Your task to perform on an android device: Go to settings Image 0: 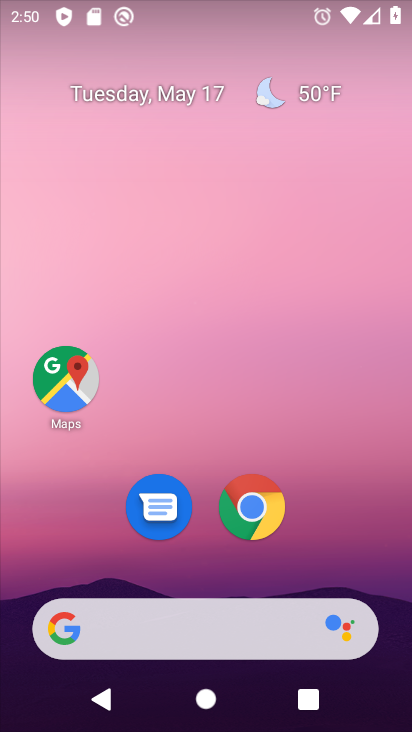
Step 0: drag from (327, 543) to (214, 19)
Your task to perform on an android device: Go to settings Image 1: 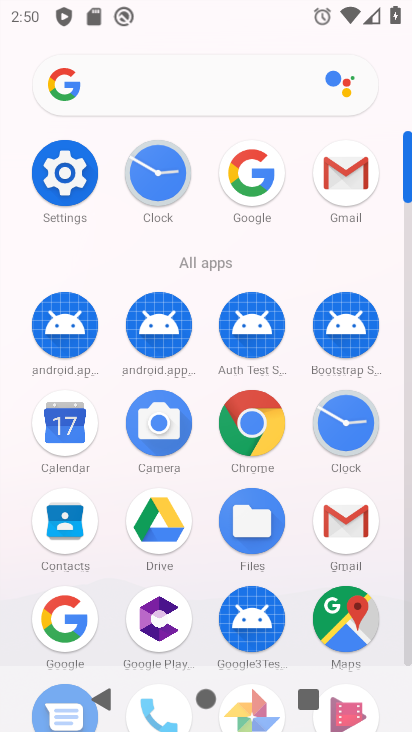
Step 1: click (67, 183)
Your task to perform on an android device: Go to settings Image 2: 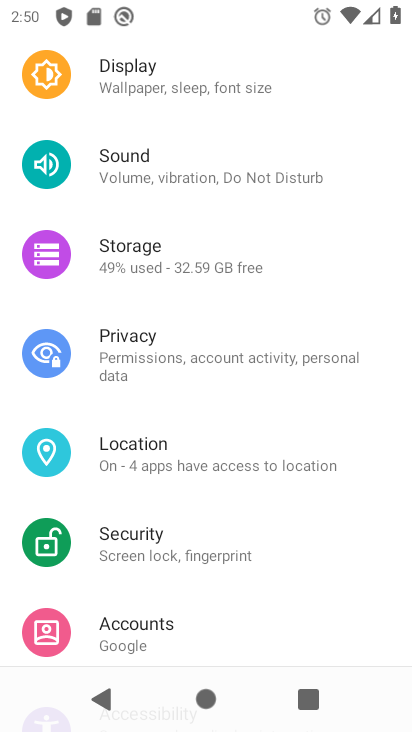
Step 2: task complete